Your task to perform on an android device: Open Youtube and go to the subscriptions tab Image 0: 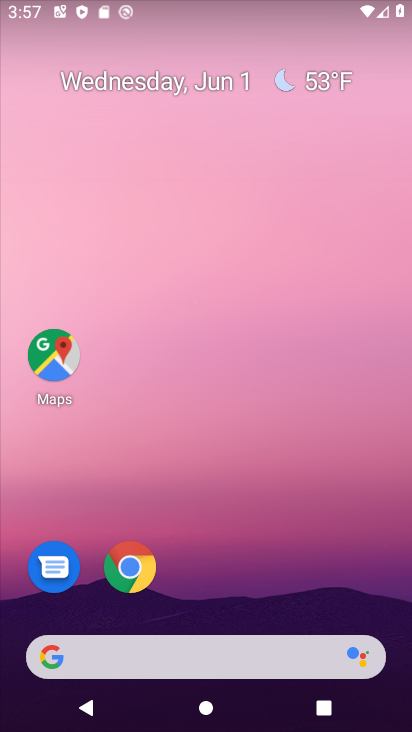
Step 0: drag from (226, 617) to (309, 76)
Your task to perform on an android device: Open Youtube and go to the subscriptions tab Image 1: 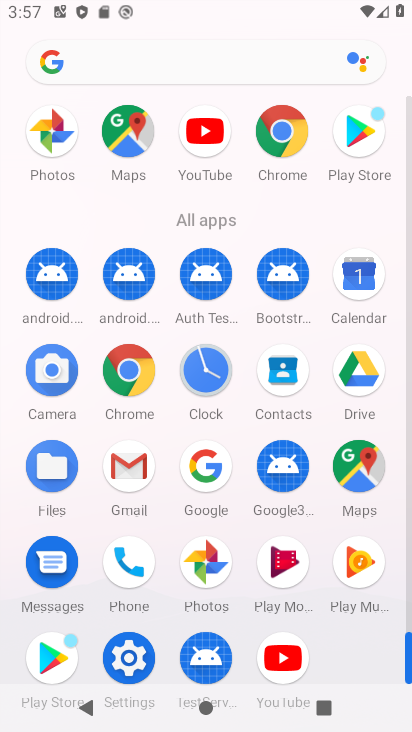
Step 1: click (279, 670)
Your task to perform on an android device: Open Youtube and go to the subscriptions tab Image 2: 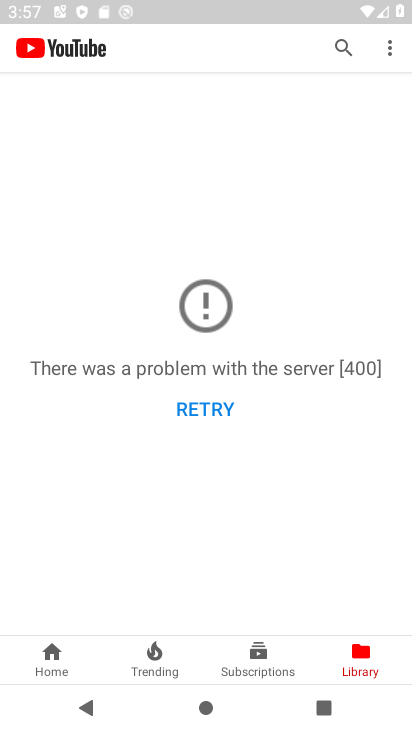
Step 2: click (271, 670)
Your task to perform on an android device: Open Youtube and go to the subscriptions tab Image 3: 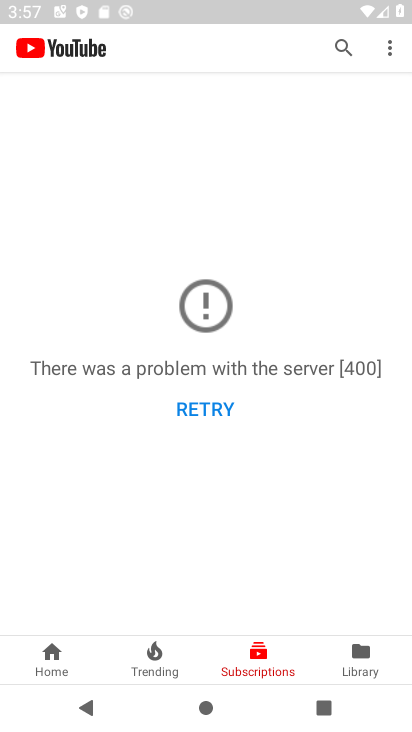
Step 3: task complete